Your task to perform on an android device: Go to settings Image 0: 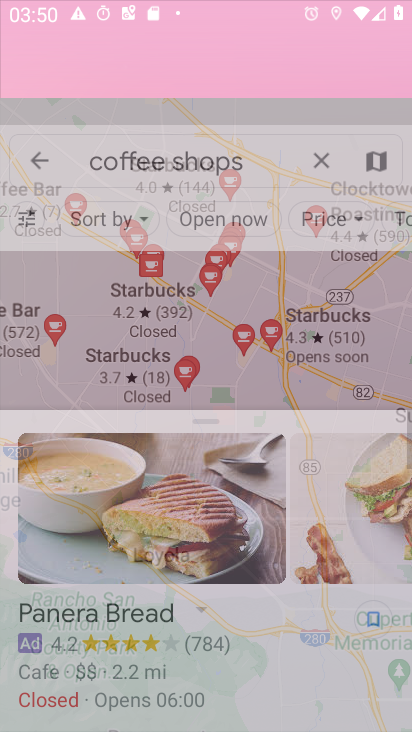
Step 0: press home button
Your task to perform on an android device: Go to settings Image 1: 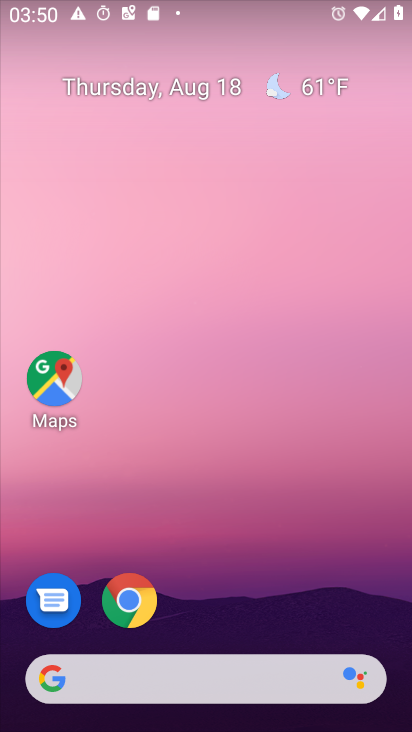
Step 1: drag from (224, 636) to (293, 84)
Your task to perform on an android device: Go to settings Image 2: 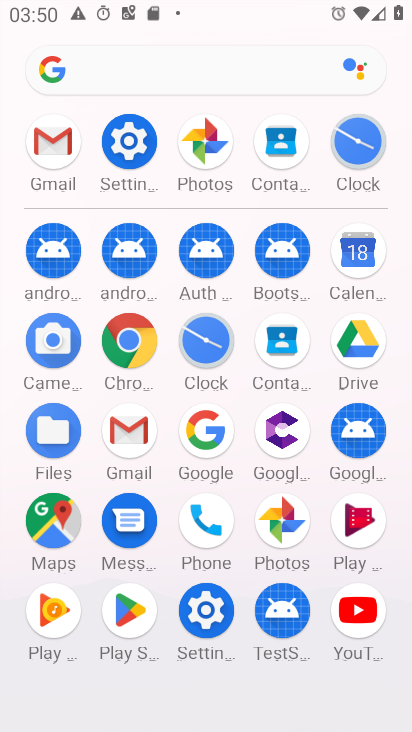
Step 2: click (129, 146)
Your task to perform on an android device: Go to settings Image 3: 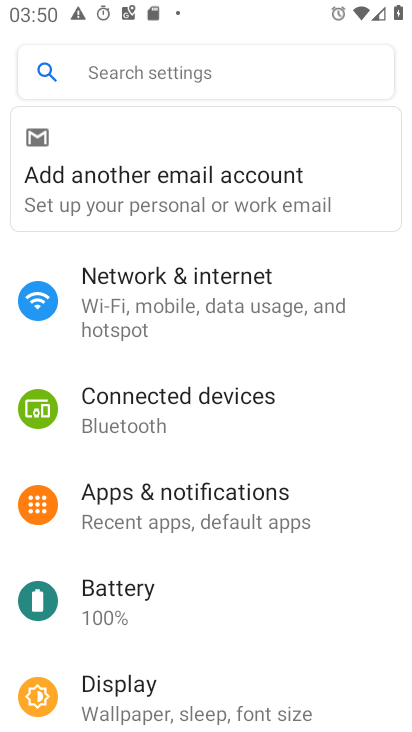
Step 3: task complete